Your task to perform on an android device: open chrome privacy settings Image 0: 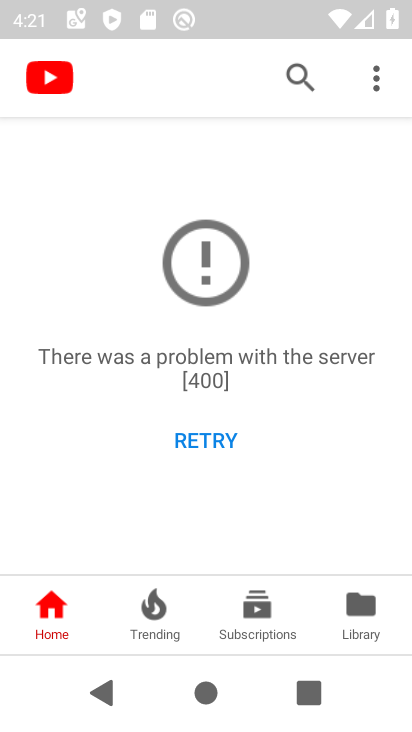
Step 0: press home button
Your task to perform on an android device: open chrome privacy settings Image 1: 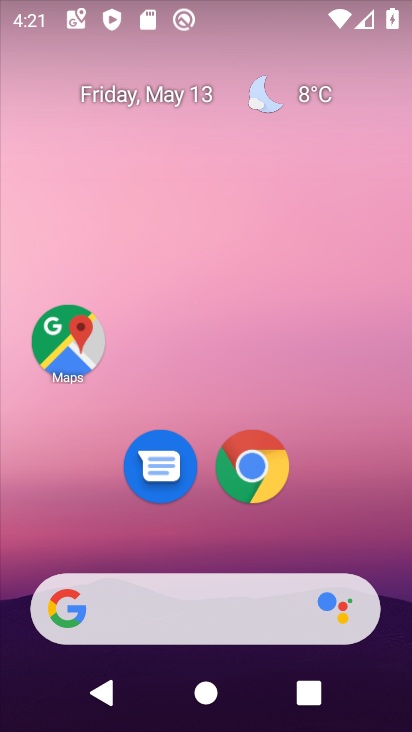
Step 1: drag from (393, 634) to (355, 194)
Your task to perform on an android device: open chrome privacy settings Image 2: 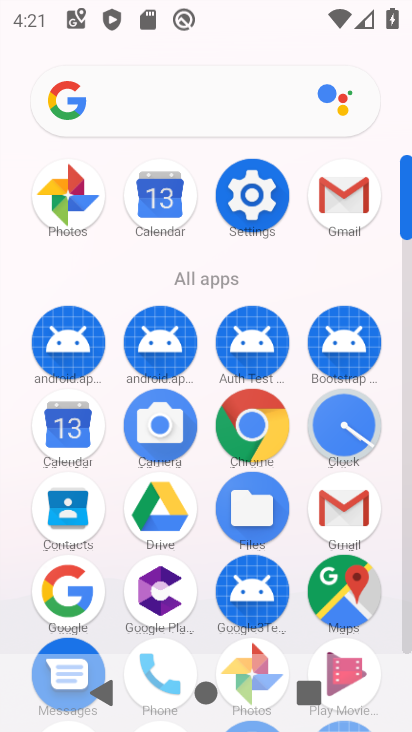
Step 2: click (256, 415)
Your task to perform on an android device: open chrome privacy settings Image 3: 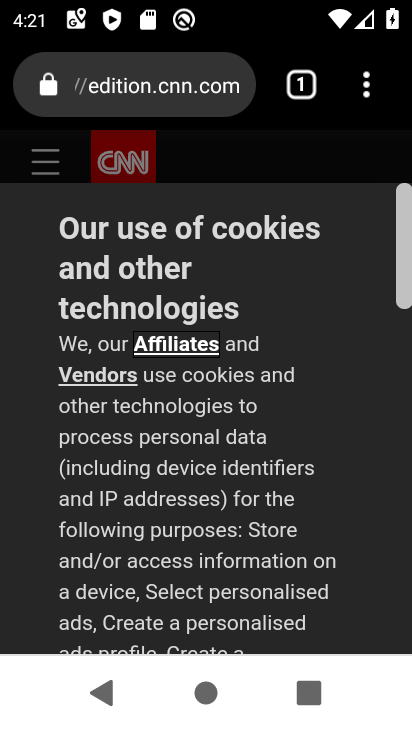
Step 3: click (365, 88)
Your task to perform on an android device: open chrome privacy settings Image 4: 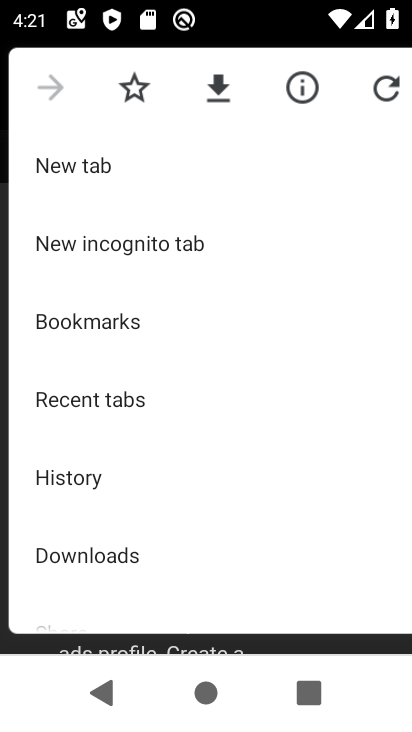
Step 4: drag from (159, 550) to (254, 180)
Your task to perform on an android device: open chrome privacy settings Image 5: 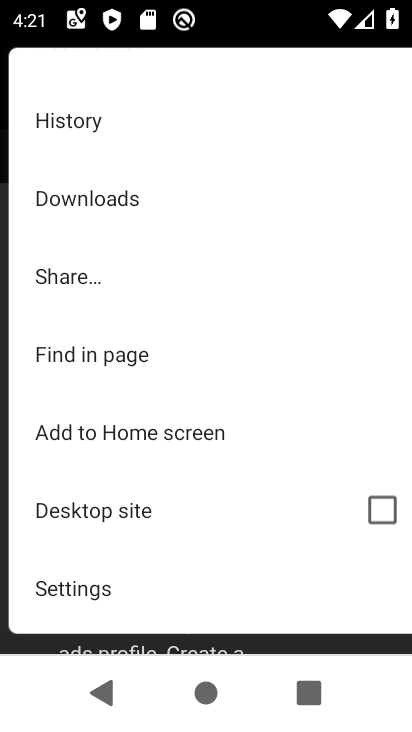
Step 5: drag from (197, 569) to (239, 283)
Your task to perform on an android device: open chrome privacy settings Image 6: 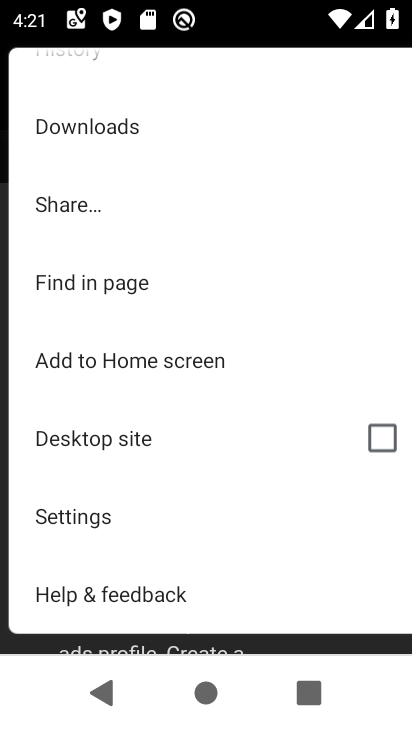
Step 6: click (96, 535)
Your task to perform on an android device: open chrome privacy settings Image 7: 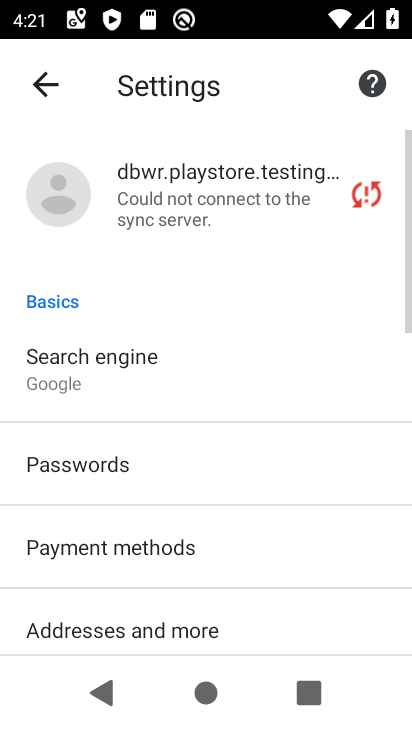
Step 7: drag from (272, 593) to (256, 114)
Your task to perform on an android device: open chrome privacy settings Image 8: 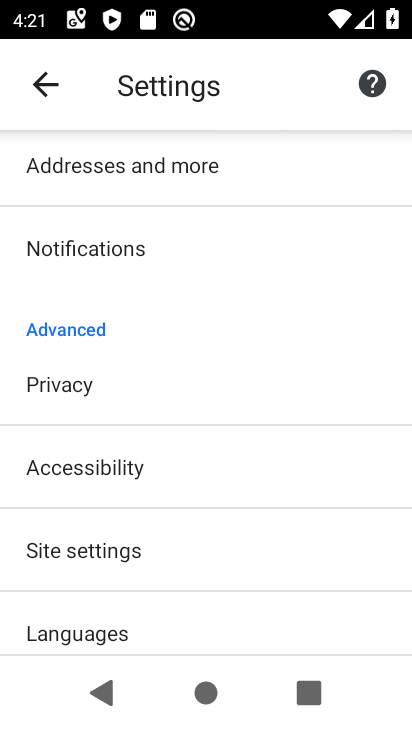
Step 8: click (54, 396)
Your task to perform on an android device: open chrome privacy settings Image 9: 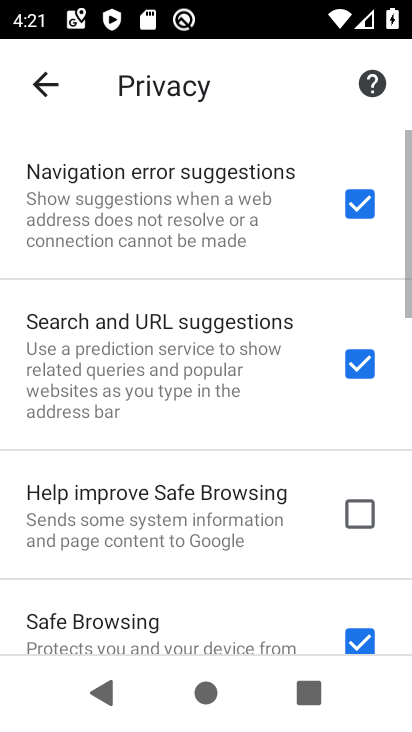
Step 9: task complete